Your task to perform on an android device: see tabs open on other devices in the chrome app Image 0: 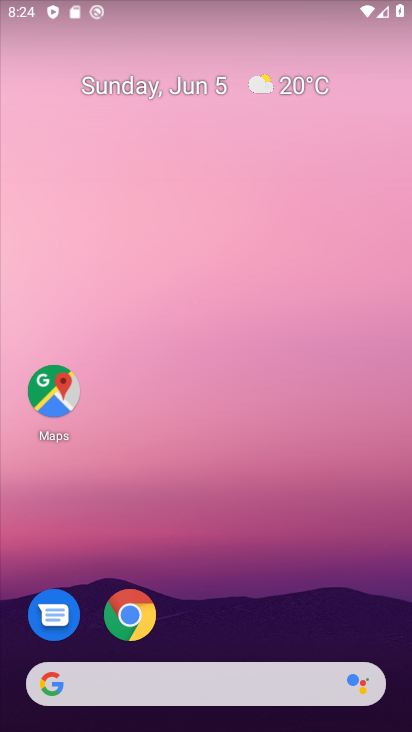
Step 0: click (130, 621)
Your task to perform on an android device: see tabs open on other devices in the chrome app Image 1: 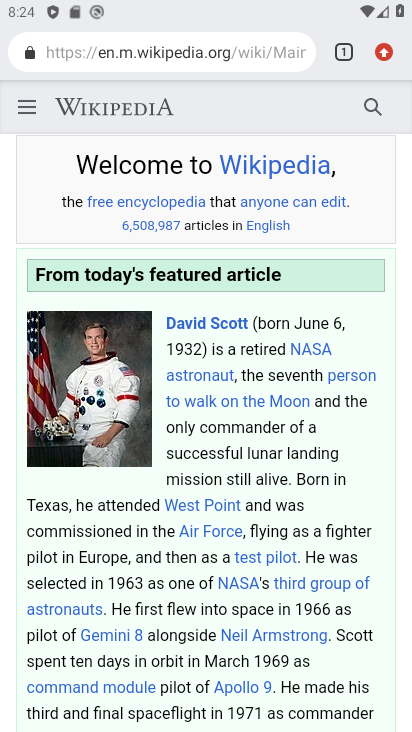
Step 1: click (384, 47)
Your task to perform on an android device: see tabs open on other devices in the chrome app Image 2: 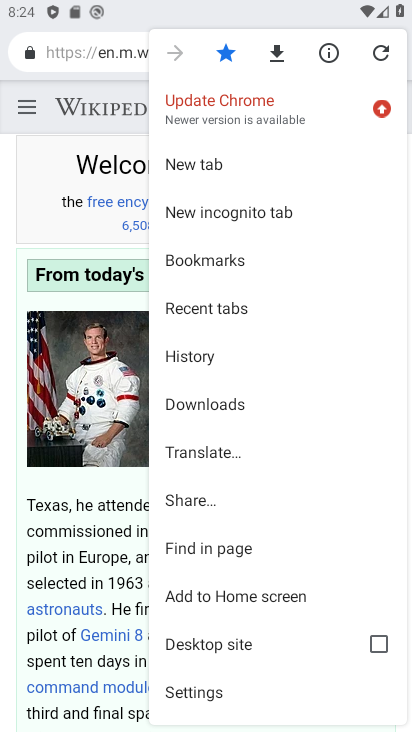
Step 2: click (200, 302)
Your task to perform on an android device: see tabs open on other devices in the chrome app Image 3: 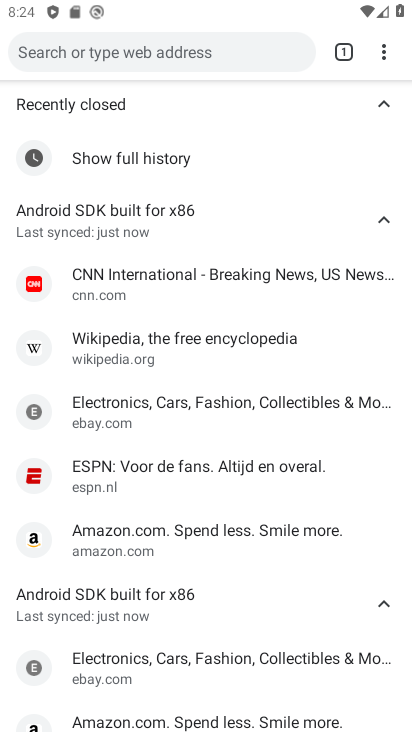
Step 3: task complete